Your task to perform on an android device: Go to internet settings Image 0: 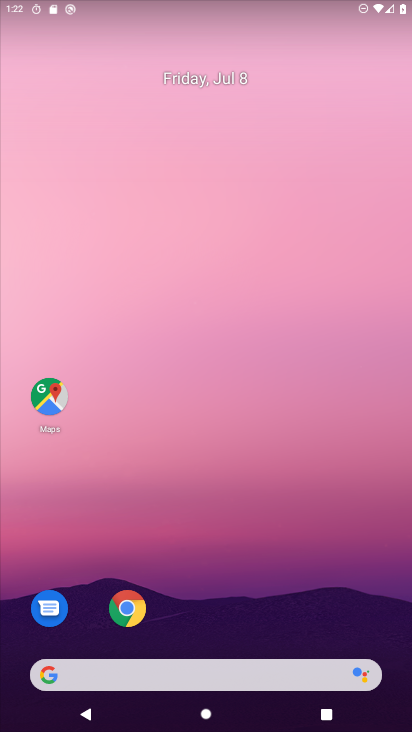
Step 0: drag from (236, 666) to (235, 113)
Your task to perform on an android device: Go to internet settings Image 1: 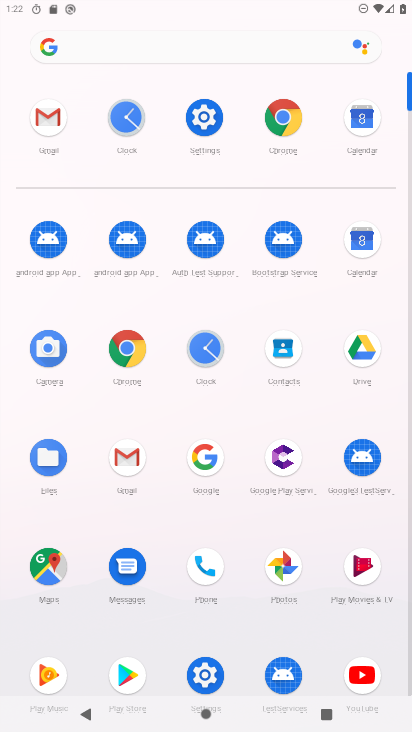
Step 1: click (204, 111)
Your task to perform on an android device: Go to internet settings Image 2: 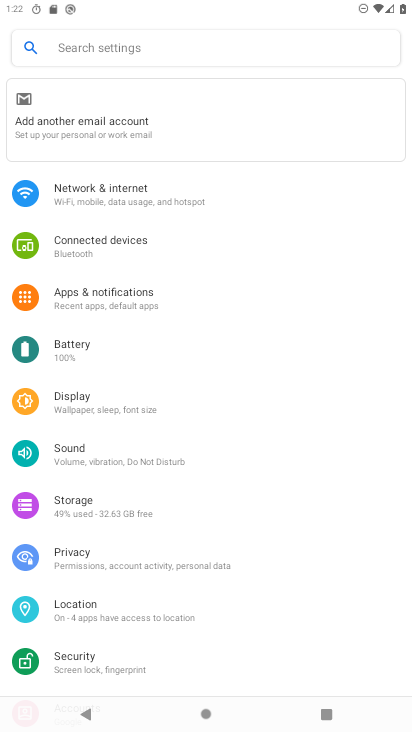
Step 2: click (77, 189)
Your task to perform on an android device: Go to internet settings Image 3: 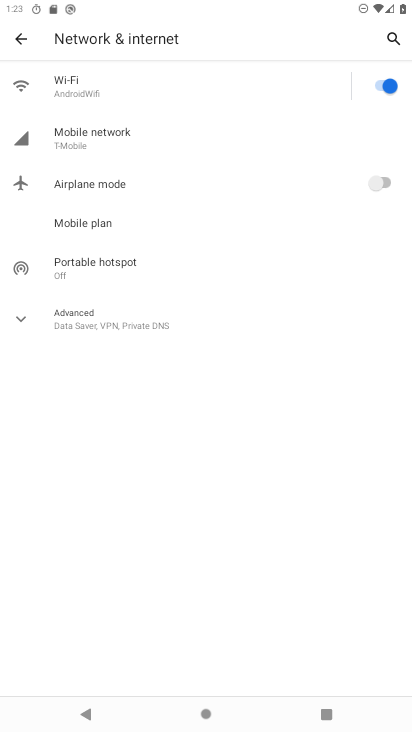
Step 3: task complete